Your task to perform on an android device: change the clock display to analog Image 0: 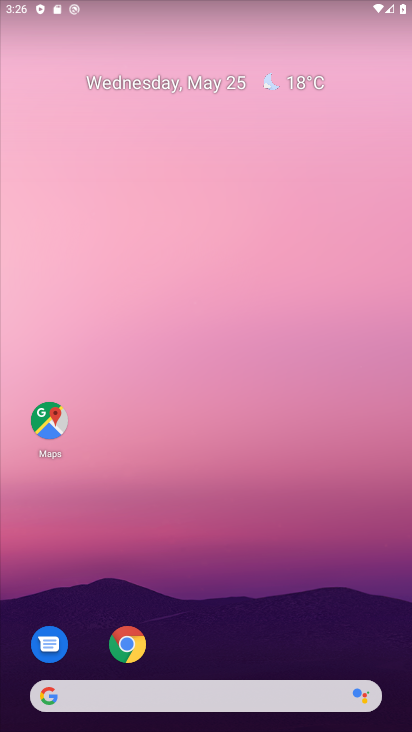
Step 0: drag from (239, 608) to (242, 40)
Your task to perform on an android device: change the clock display to analog Image 1: 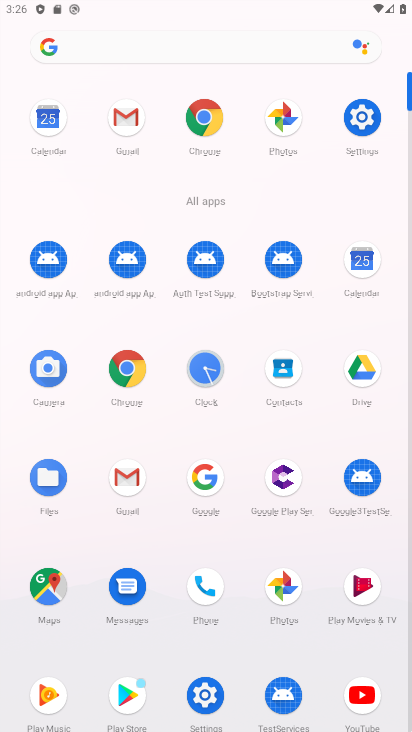
Step 1: click (205, 366)
Your task to perform on an android device: change the clock display to analog Image 2: 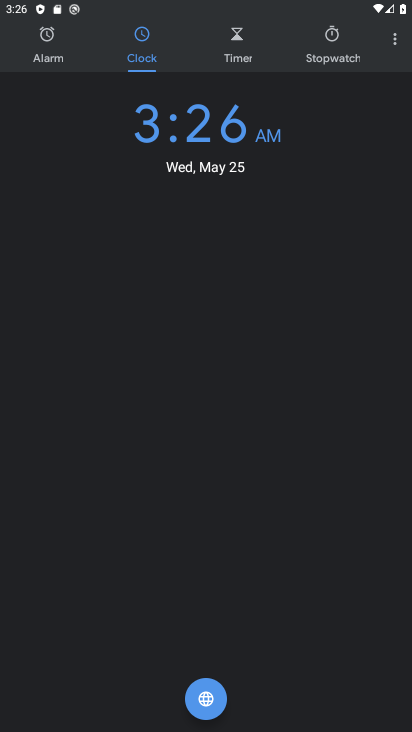
Step 2: click (395, 42)
Your task to perform on an android device: change the clock display to analog Image 3: 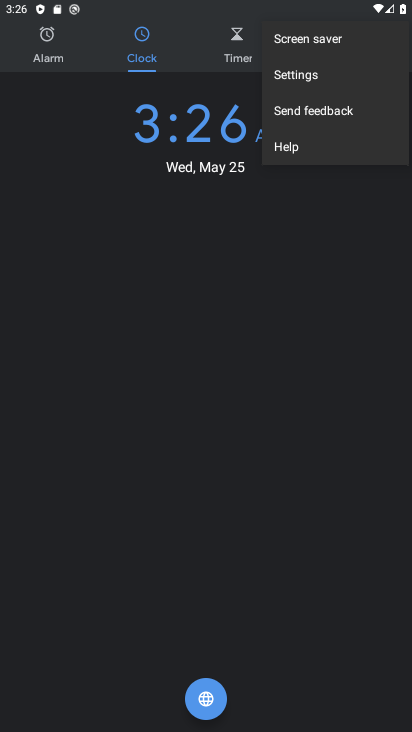
Step 3: click (304, 78)
Your task to perform on an android device: change the clock display to analog Image 4: 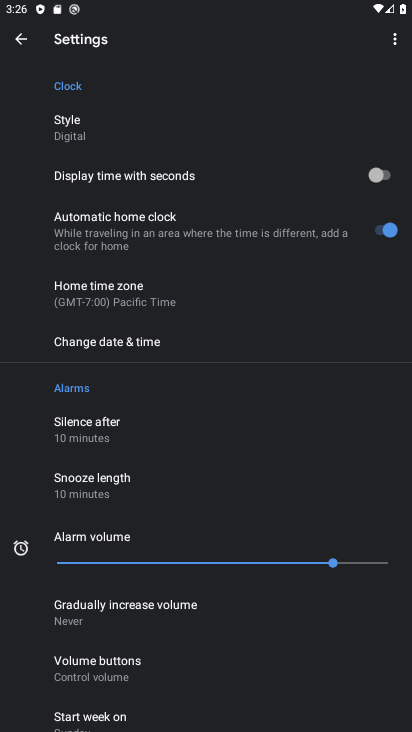
Step 4: click (81, 134)
Your task to perform on an android device: change the clock display to analog Image 5: 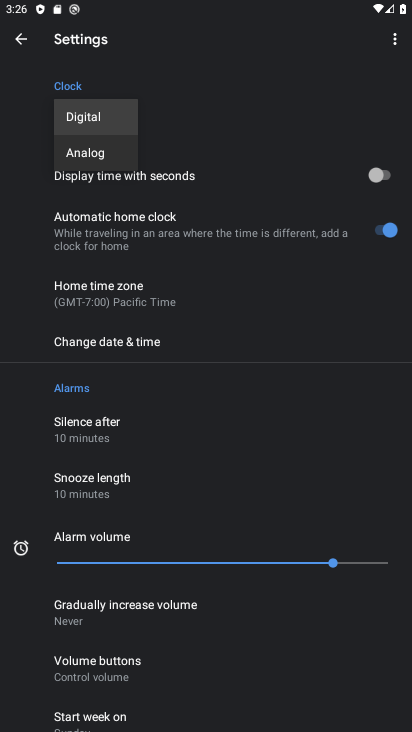
Step 5: click (91, 150)
Your task to perform on an android device: change the clock display to analog Image 6: 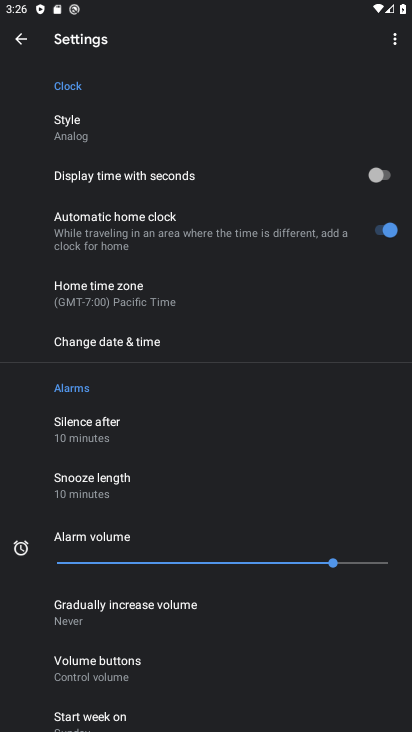
Step 6: task complete